Your task to perform on an android device: turn off data saver in the chrome app Image 0: 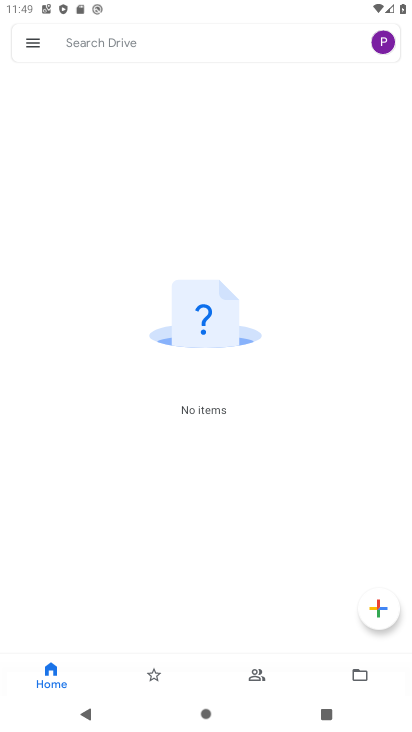
Step 0: press home button
Your task to perform on an android device: turn off data saver in the chrome app Image 1: 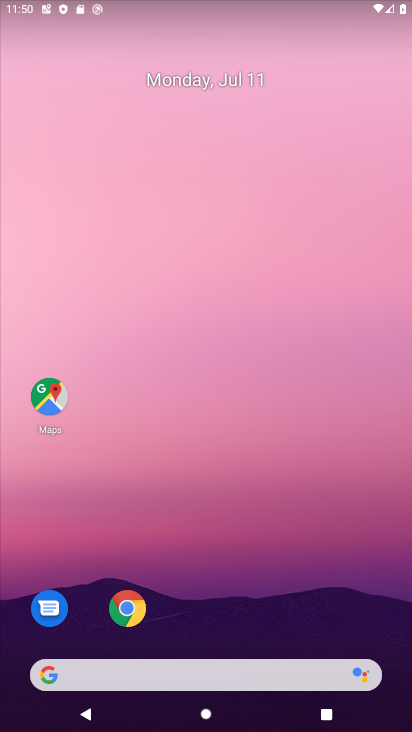
Step 1: click (139, 605)
Your task to perform on an android device: turn off data saver in the chrome app Image 2: 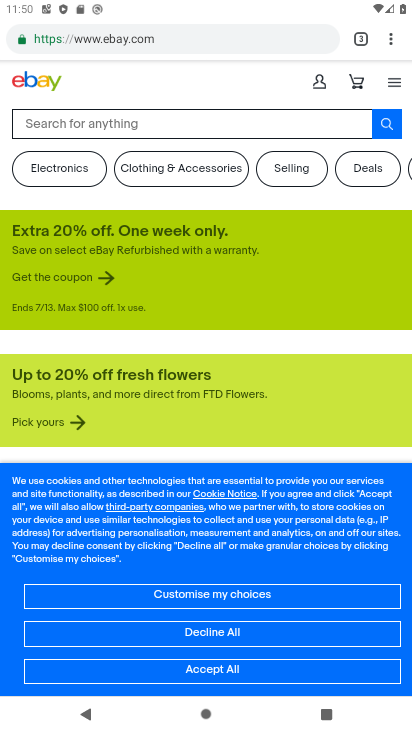
Step 2: click (119, 604)
Your task to perform on an android device: turn off data saver in the chrome app Image 3: 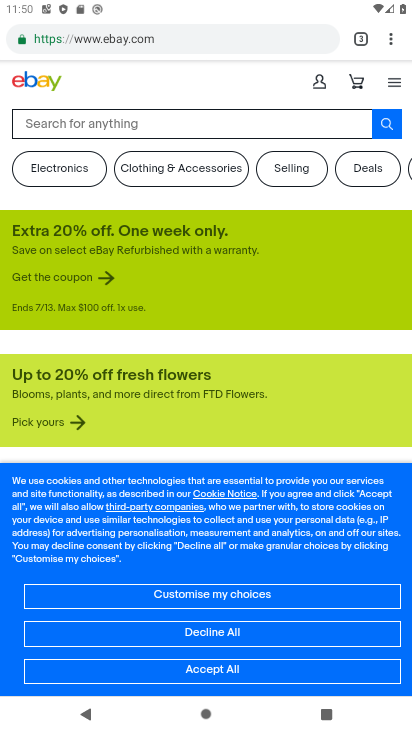
Step 3: click (130, 607)
Your task to perform on an android device: turn off data saver in the chrome app Image 4: 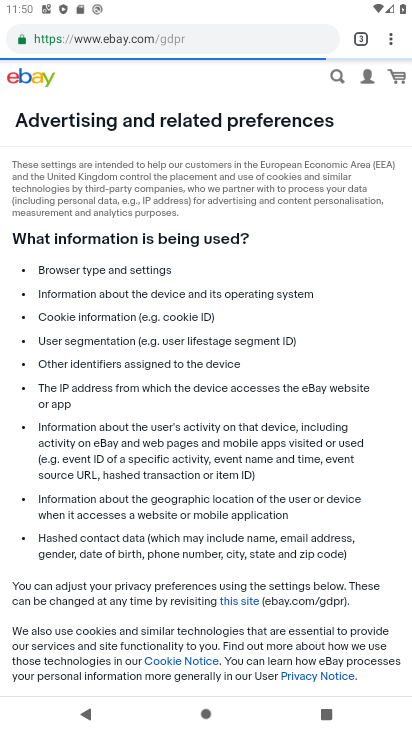
Step 4: click (387, 41)
Your task to perform on an android device: turn off data saver in the chrome app Image 5: 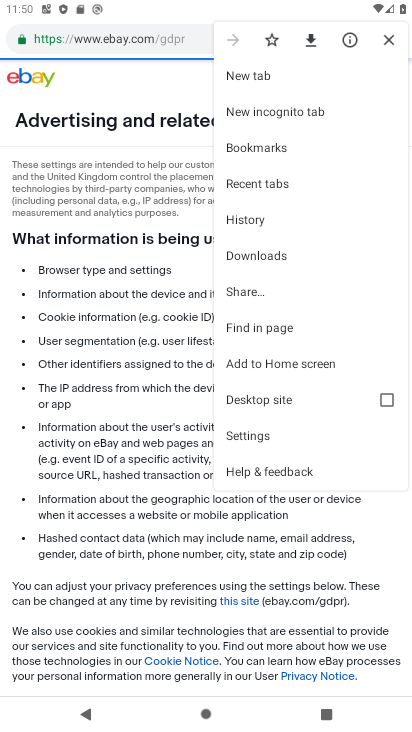
Step 5: click (382, 40)
Your task to perform on an android device: turn off data saver in the chrome app Image 6: 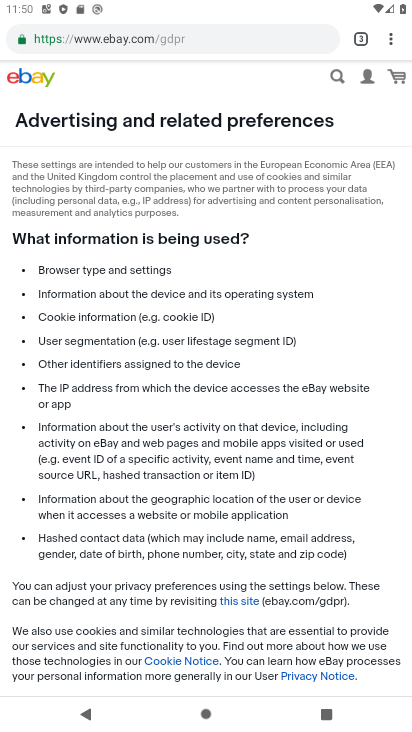
Step 6: click (402, 38)
Your task to perform on an android device: turn off data saver in the chrome app Image 7: 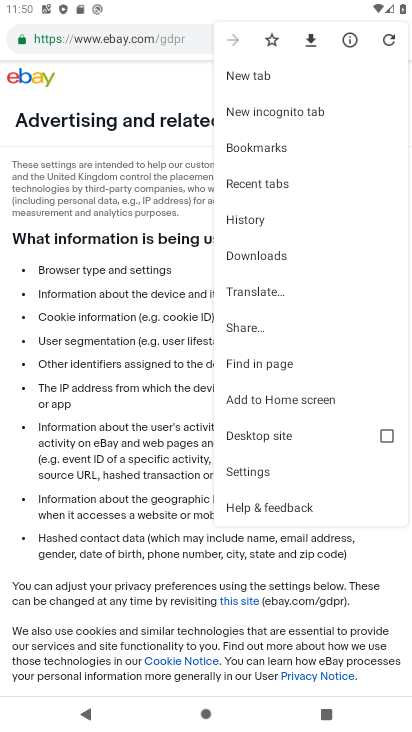
Step 7: click (244, 461)
Your task to perform on an android device: turn off data saver in the chrome app Image 8: 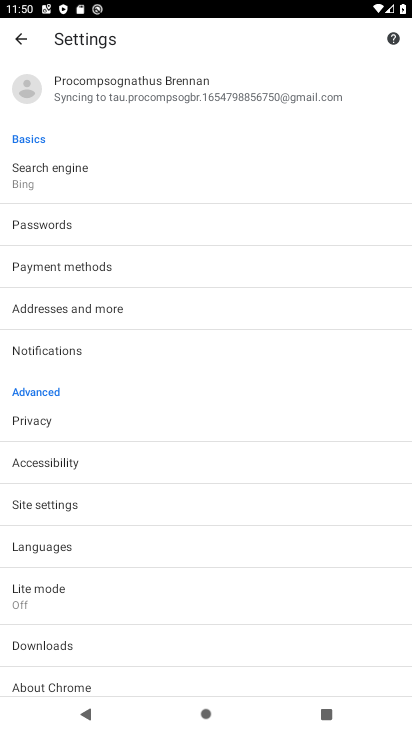
Step 8: click (110, 605)
Your task to perform on an android device: turn off data saver in the chrome app Image 9: 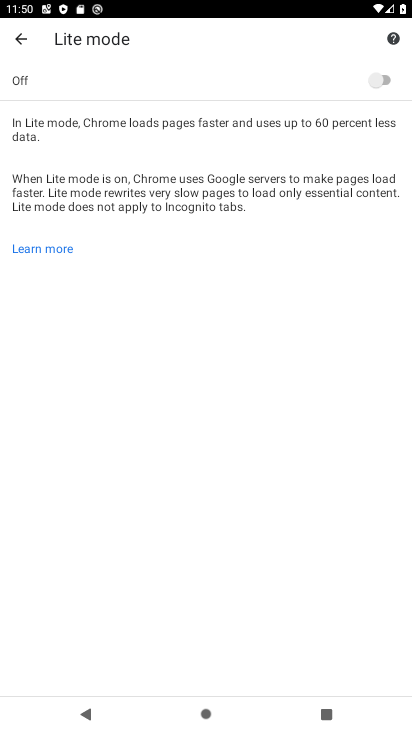
Step 9: task complete